Your task to perform on an android device: Search for sushi restaurants on Maps Image 0: 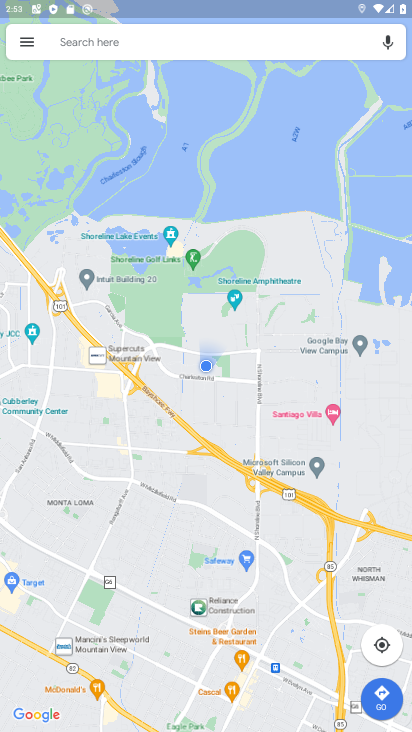
Step 0: press home button
Your task to perform on an android device: Search for sushi restaurants on Maps Image 1: 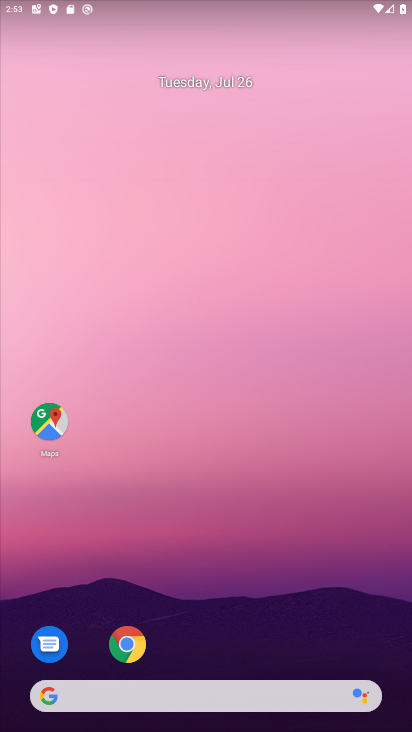
Step 1: drag from (173, 619) to (173, 302)
Your task to perform on an android device: Search for sushi restaurants on Maps Image 2: 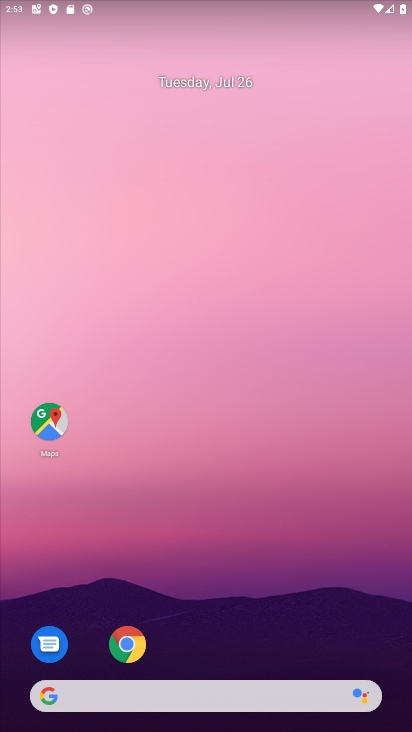
Step 2: drag from (295, 681) to (295, 171)
Your task to perform on an android device: Search for sushi restaurants on Maps Image 3: 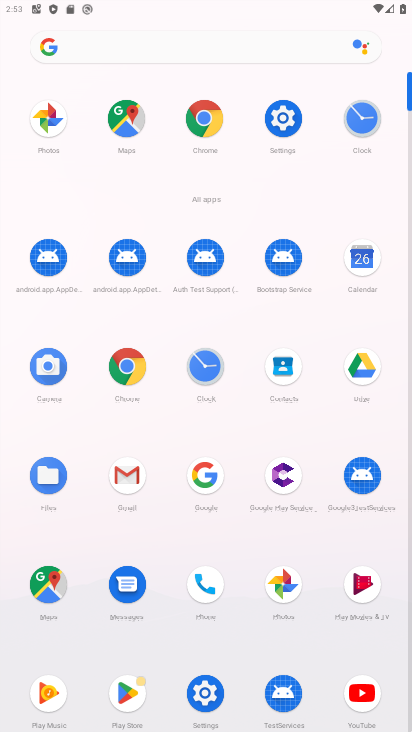
Step 3: click (35, 587)
Your task to perform on an android device: Search for sushi restaurants on Maps Image 4: 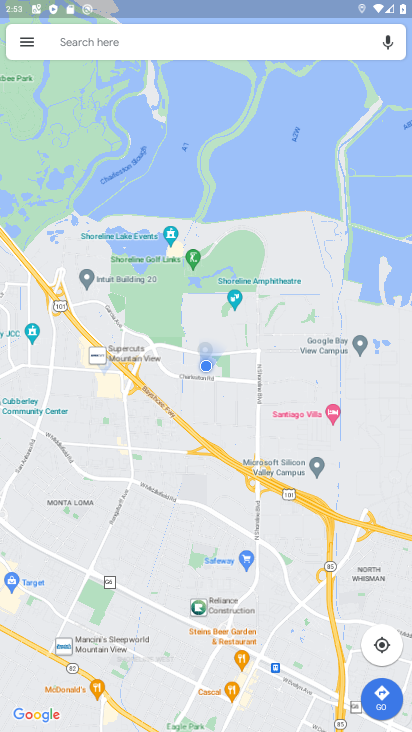
Step 4: click (131, 48)
Your task to perform on an android device: Search for sushi restaurants on Maps Image 5: 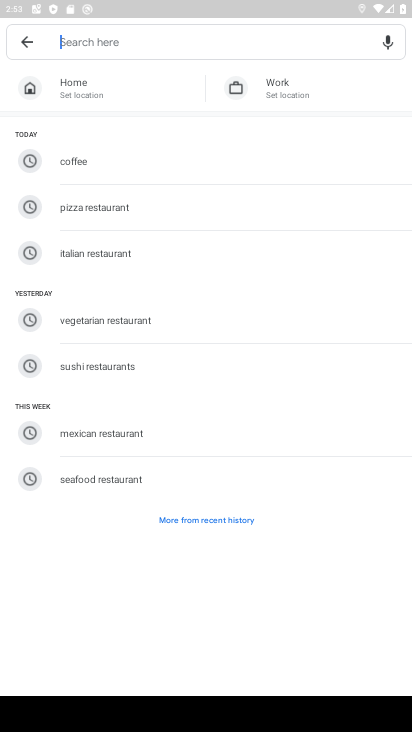
Step 5: click (93, 364)
Your task to perform on an android device: Search for sushi restaurants on Maps Image 6: 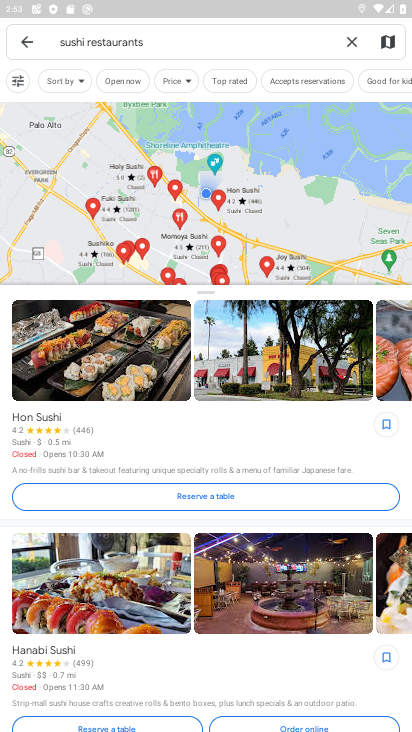
Step 6: task complete